Your task to perform on an android device: turn on sleep mode Image 0: 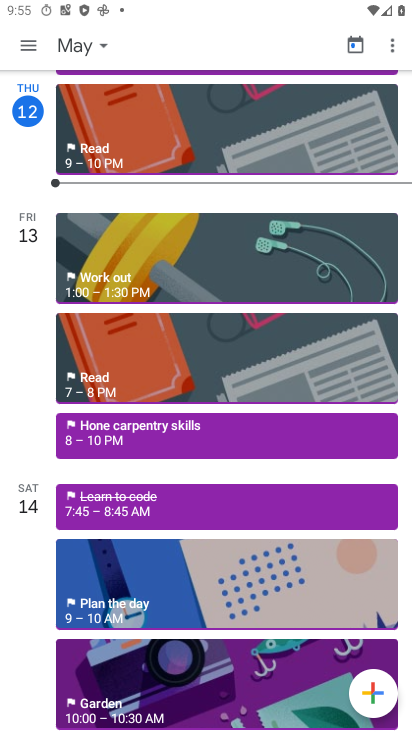
Step 0: press home button
Your task to perform on an android device: turn on sleep mode Image 1: 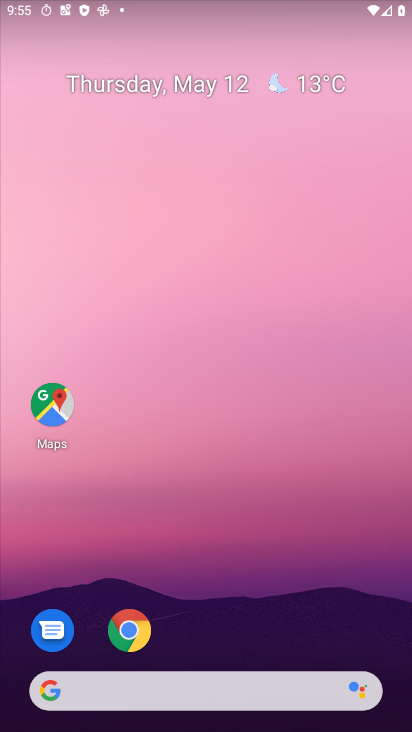
Step 1: drag from (242, 682) to (263, 374)
Your task to perform on an android device: turn on sleep mode Image 2: 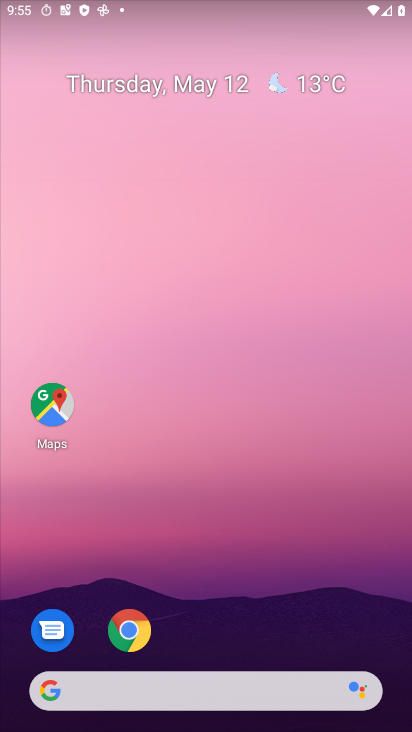
Step 2: drag from (165, 704) to (213, 227)
Your task to perform on an android device: turn on sleep mode Image 3: 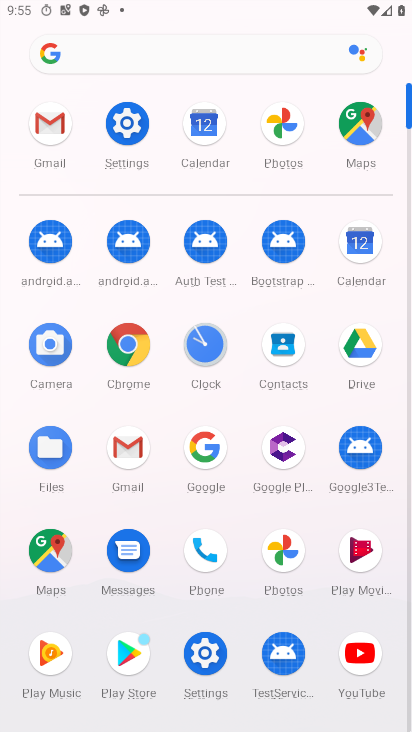
Step 3: click (214, 645)
Your task to perform on an android device: turn on sleep mode Image 4: 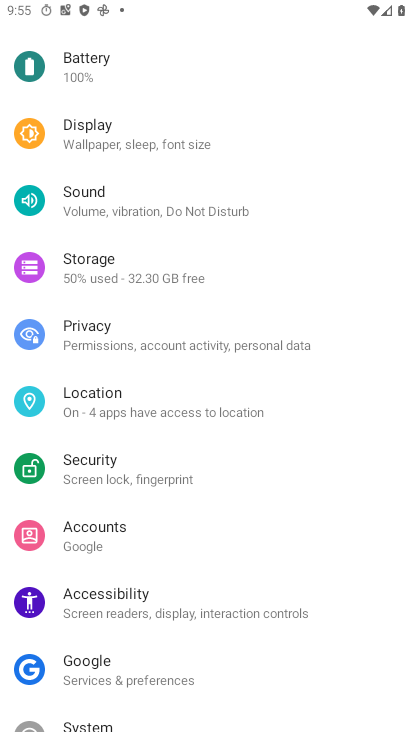
Step 4: click (110, 143)
Your task to perform on an android device: turn on sleep mode Image 5: 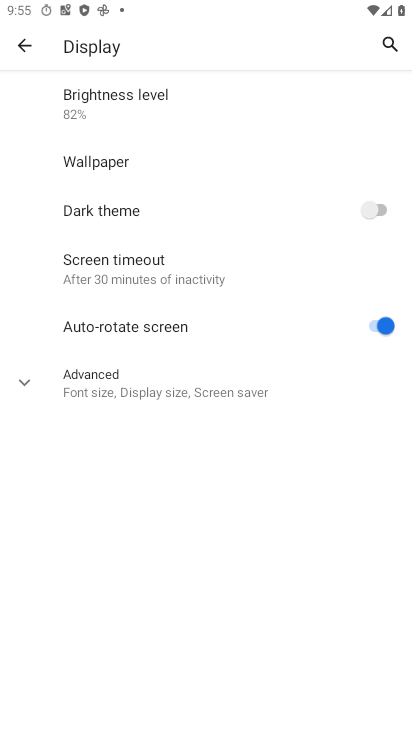
Step 5: click (128, 386)
Your task to perform on an android device: turn on sleep mode Image 6: 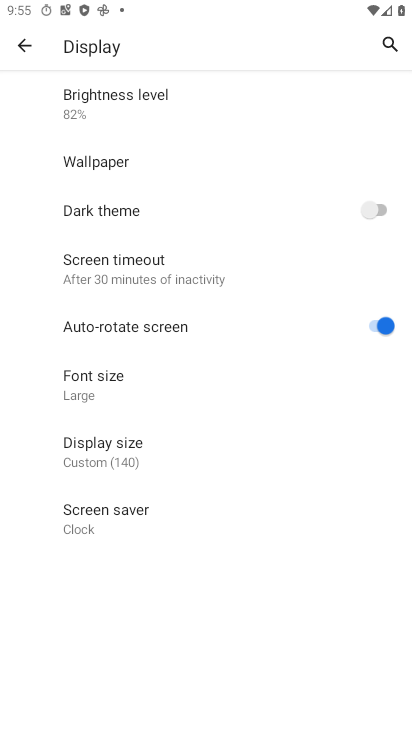
Step 6: task complete